Your task to perform on an android device: set default search engine in the chrome app Image 0: 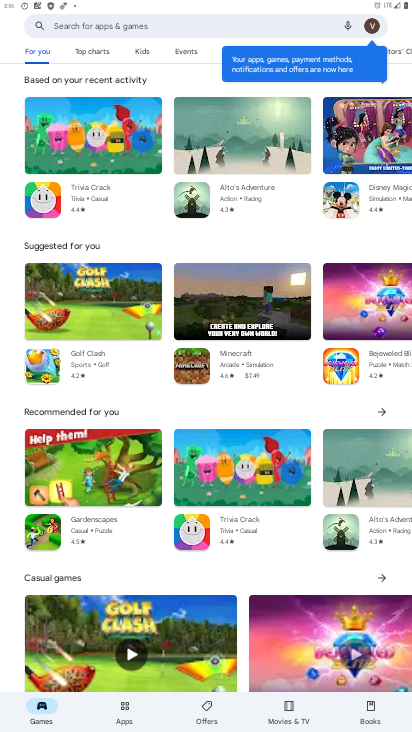
Step 0: press home button
Your task to perform on an android device: set default search engine in the chrome app Image 1: 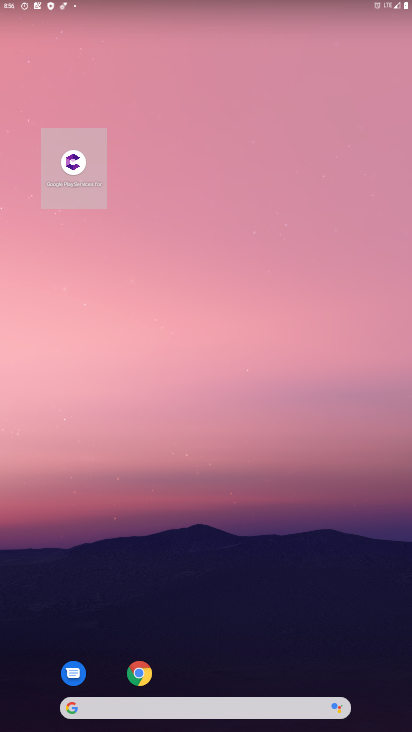
Step 1: click (139, 672)
Your task to perform on an android device: set default search engine in the chrome app Image 2: 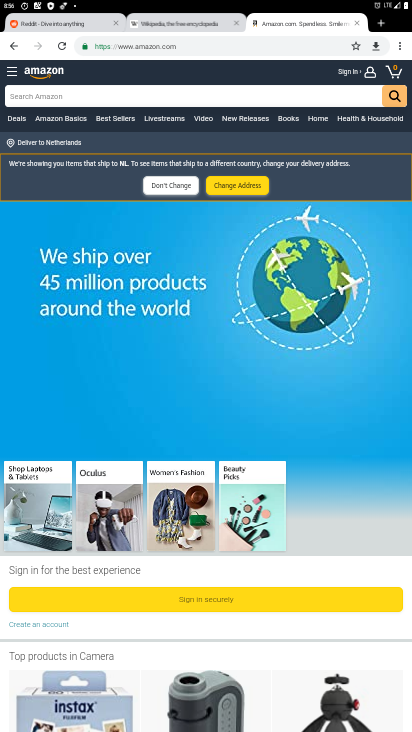
Step 2: click (397, 49)
Your task to perform on an android device: set default search engine in the chrome app Image 3: 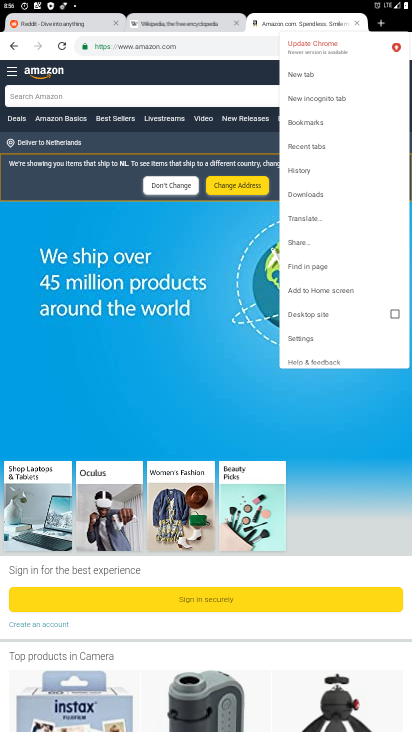
Step 3: click (302, 337)
Your task to perform on an android device: set default search engine in the chrome app Image 4: 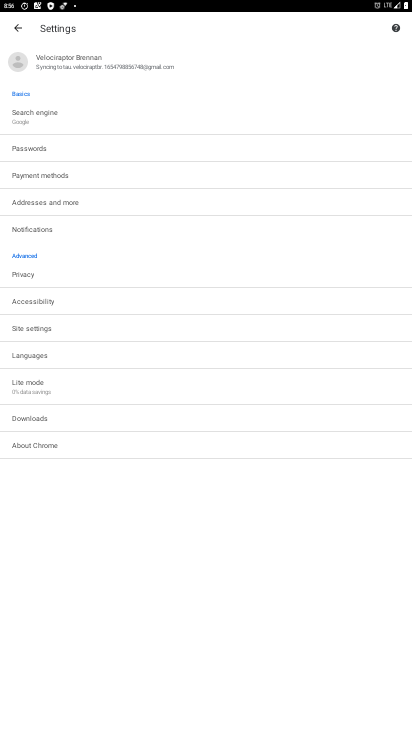
Step 4: click (32, 123)
Your task to perform on an android device: set default search engine in the chrome app Image 5: 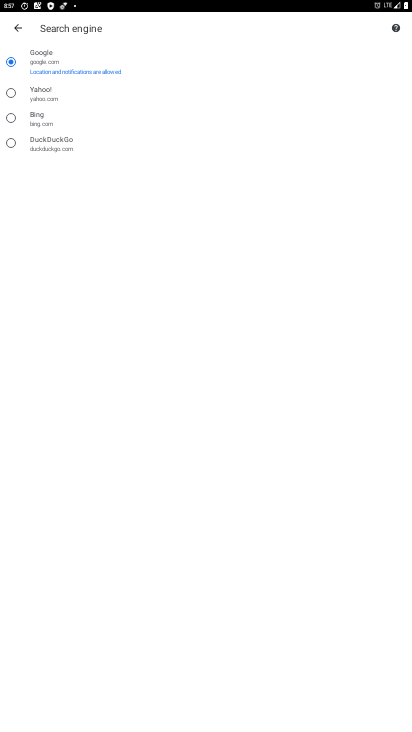
Step 5: task complete